Your task to perform on an android device: Add bose soundsport free to the cart on walmart, then select checkout. Image 0: 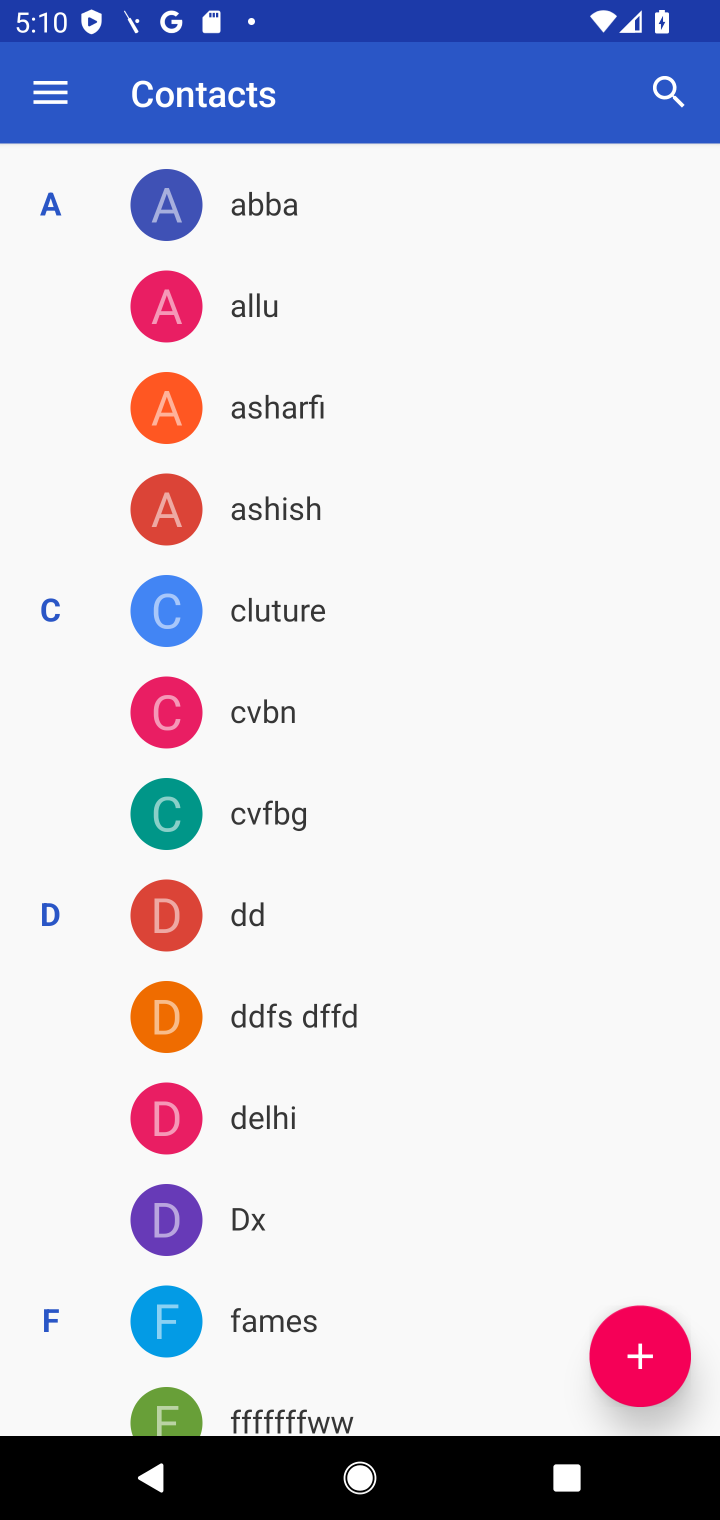
Step 0: press home button
Your task to perform on an android device: Add bose soundsport free to the cart on walmart, then select checkout. Image 1: 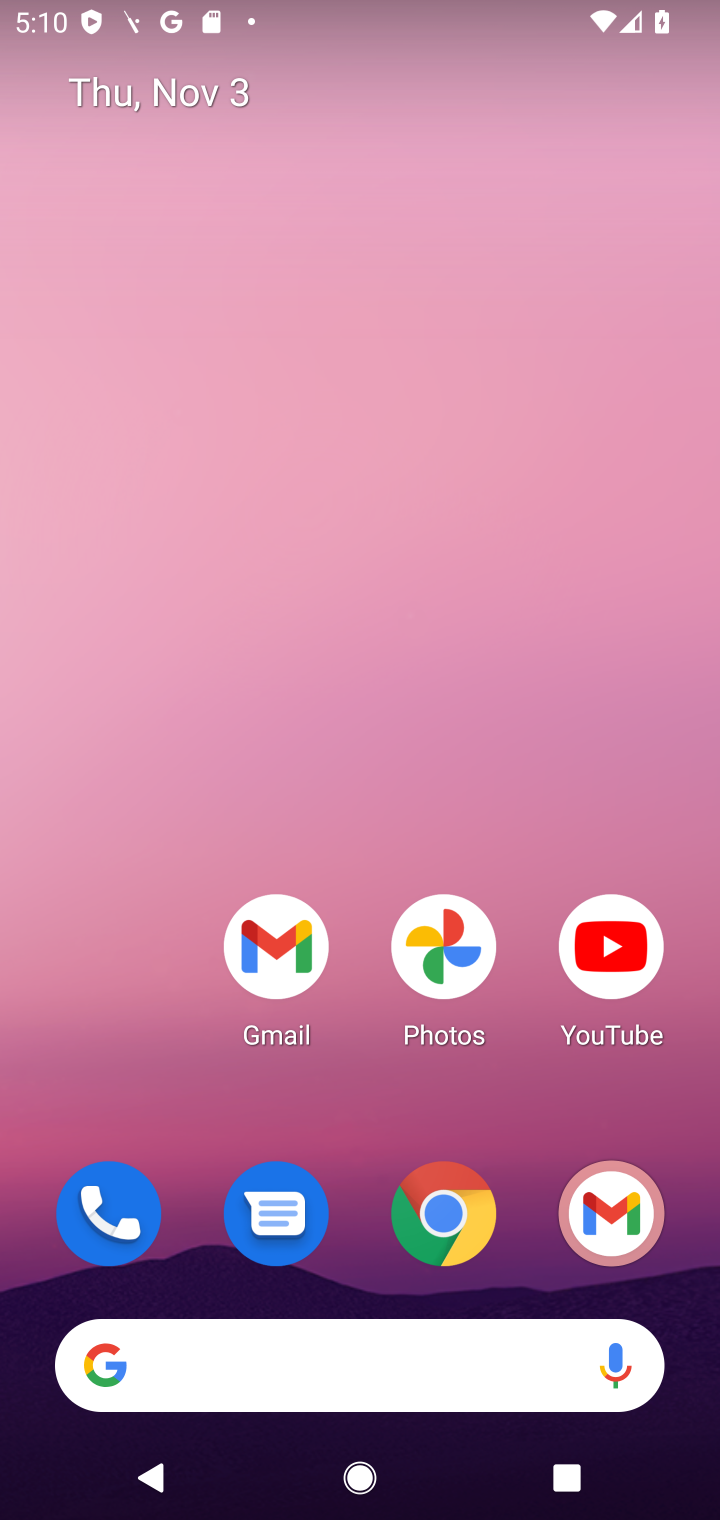
Step 1: click (452, 1217)
Your task to perform on an android device: Add bose soundsport free to the cart on walmart, then select checkout. Image 2: 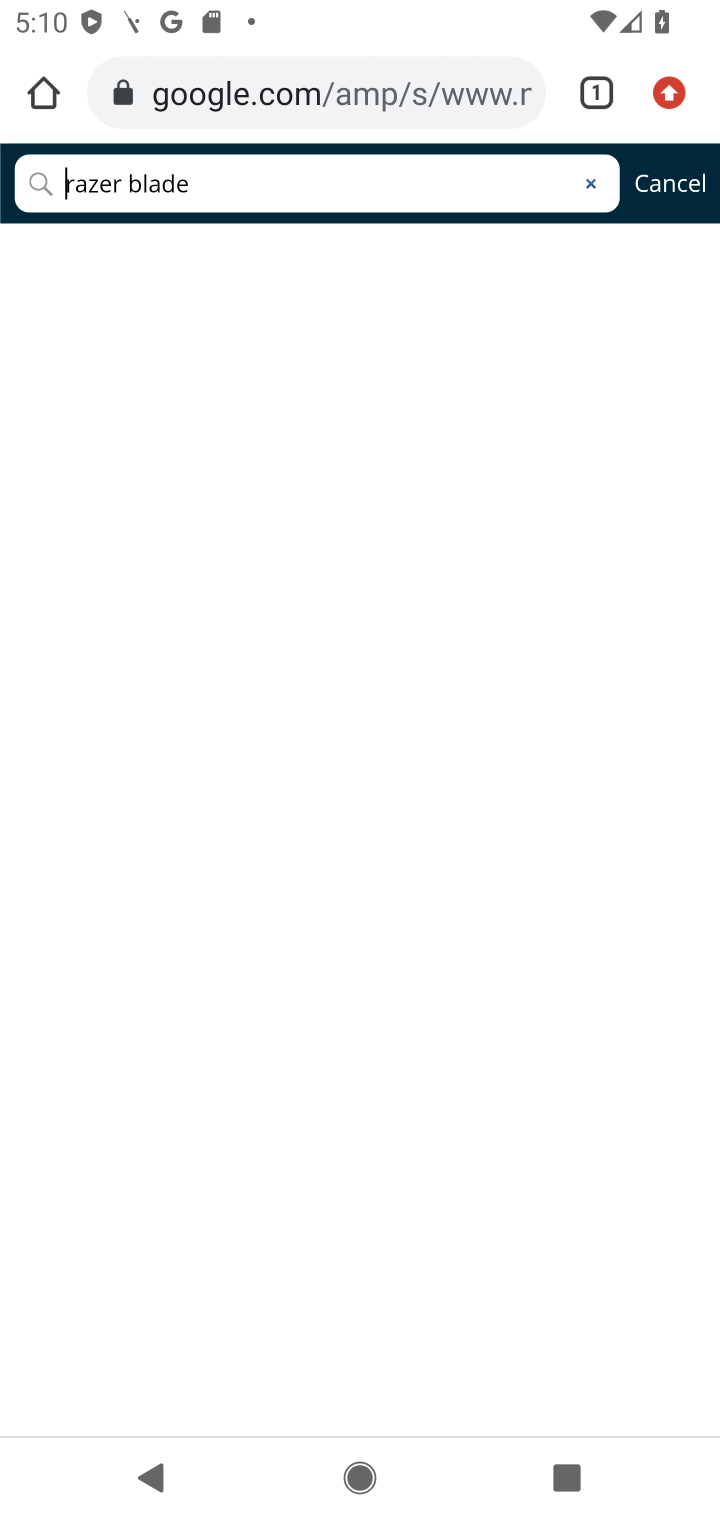
Step 2: click (374, 98)
Your task to perform on an android device: Add bose soundsport free to the cart on walmart, then select checkout. Image 3: 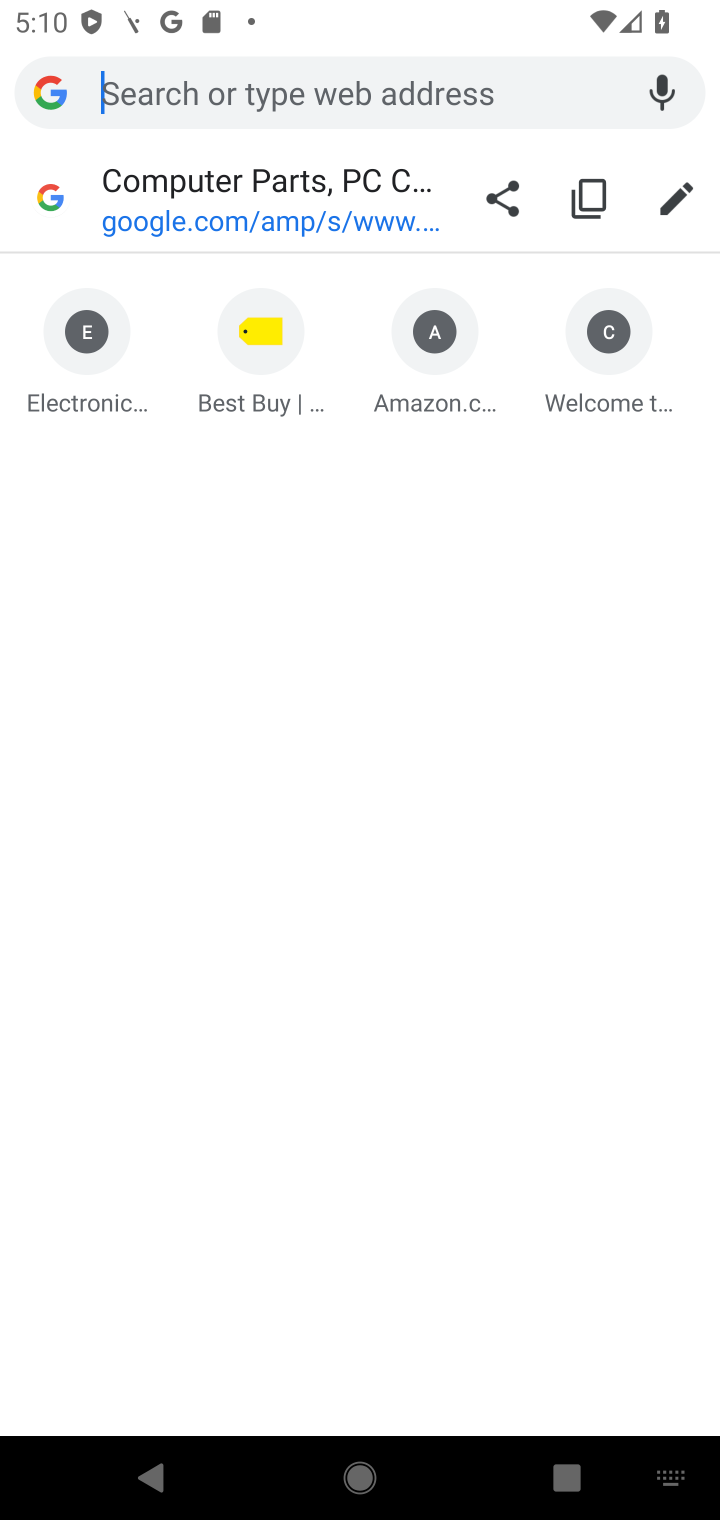
Step 3: type "walmart.com"
Your task to perform on an android device: Add bose soundsport free to the cart on walmart, then select checkout. Image 4: 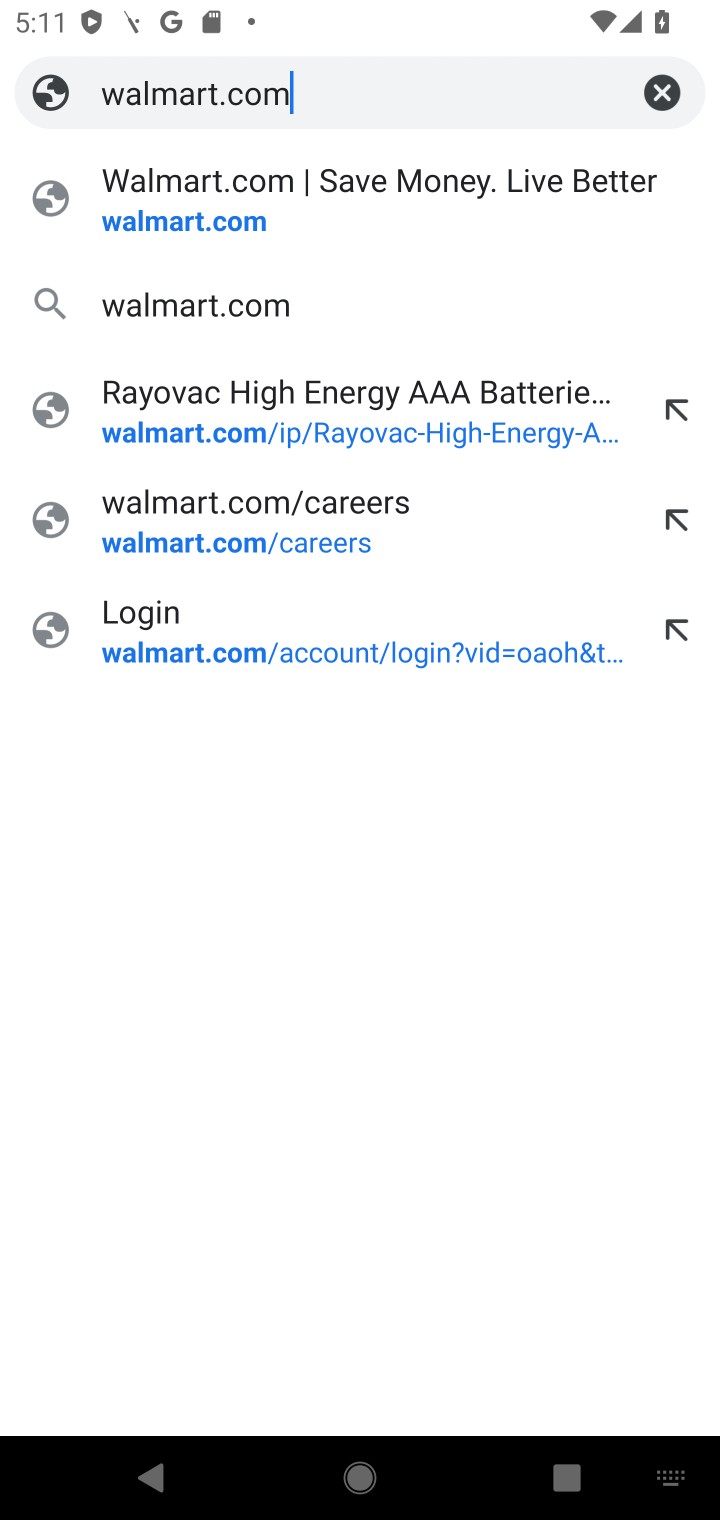
Step 4: click (150, 225)
Your task to perform on an android device: Add bose soundsport free to the cart on walmart, then select checkout. Image 5: 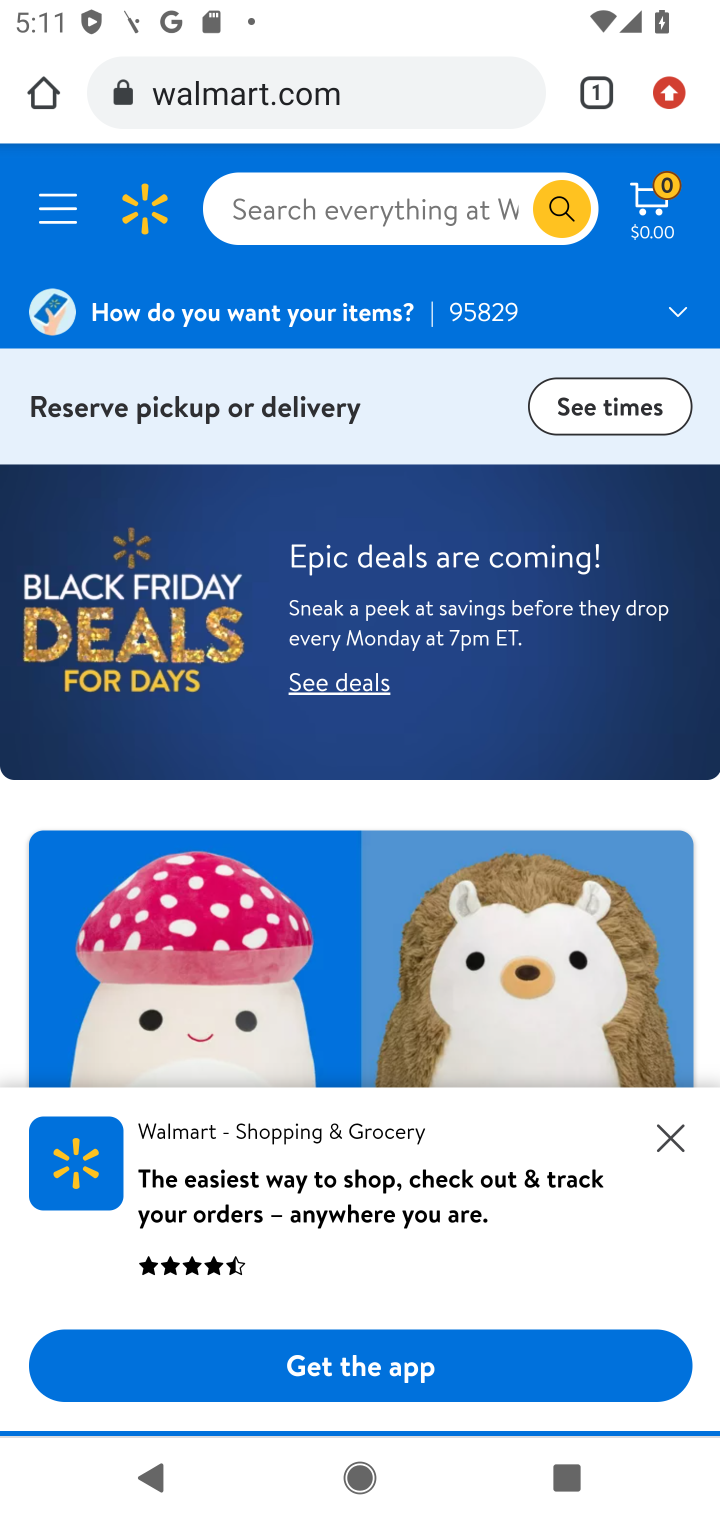
Step 5: click (348, 228)
Your task to perform on an android device: Add bose soundsport free to the cart on walmart, then select checkout. Image 6: 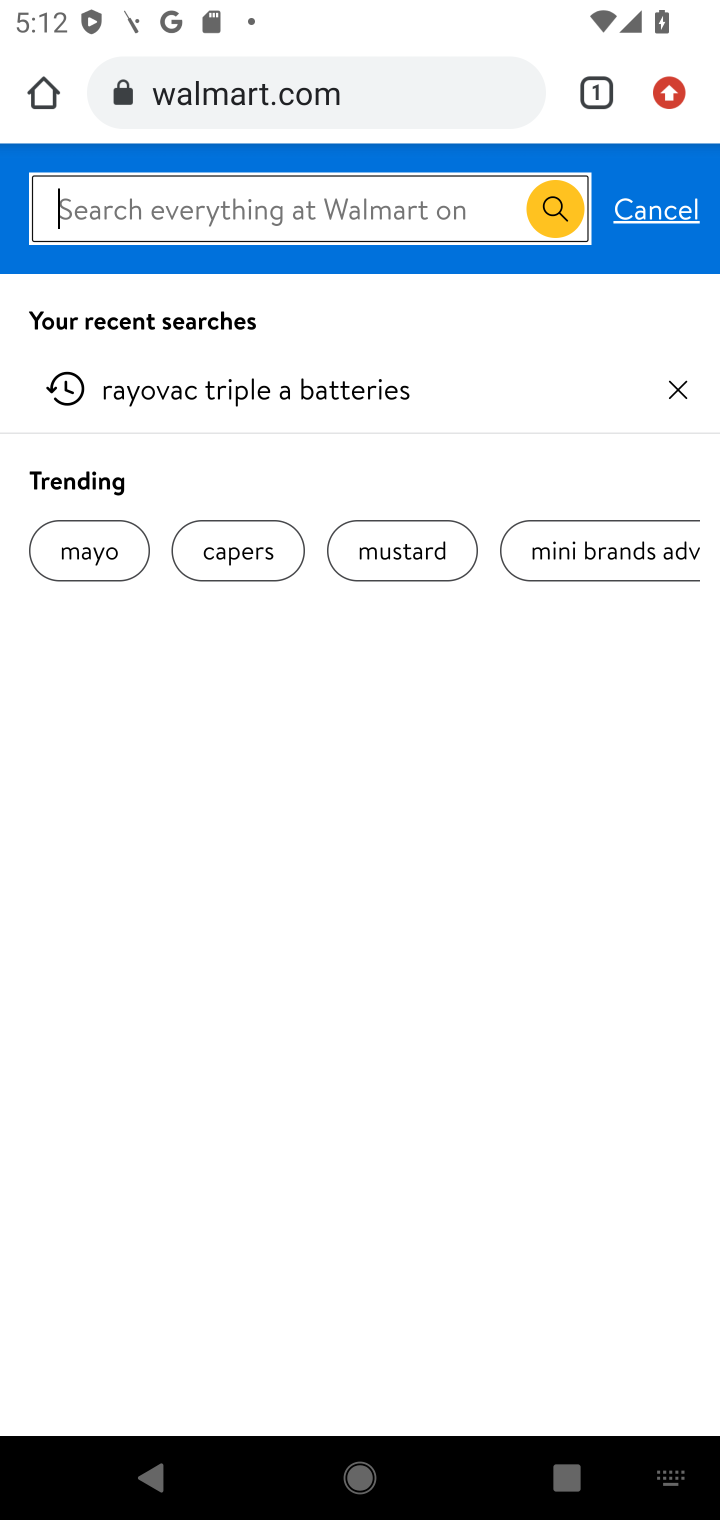
Step 6: type "bose soundsport free"
Your task to perform on an android device: Add bose soundsport free to the cart on walmart, then select checkout. Image 7: 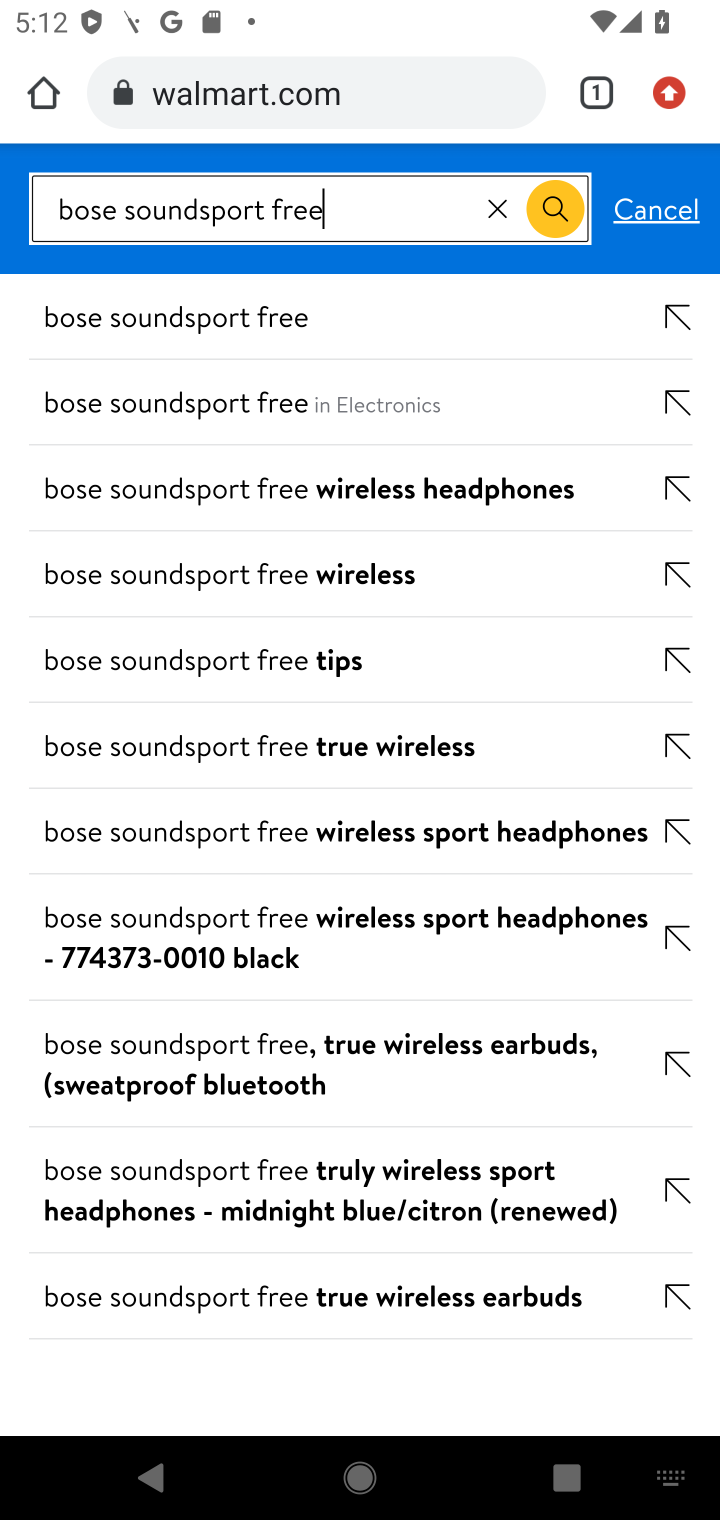
Step 7: click (161, 323)
Your task to perform on an android device: Add bose soundsport free to the cart on walmart, then select checkout. Image 8: 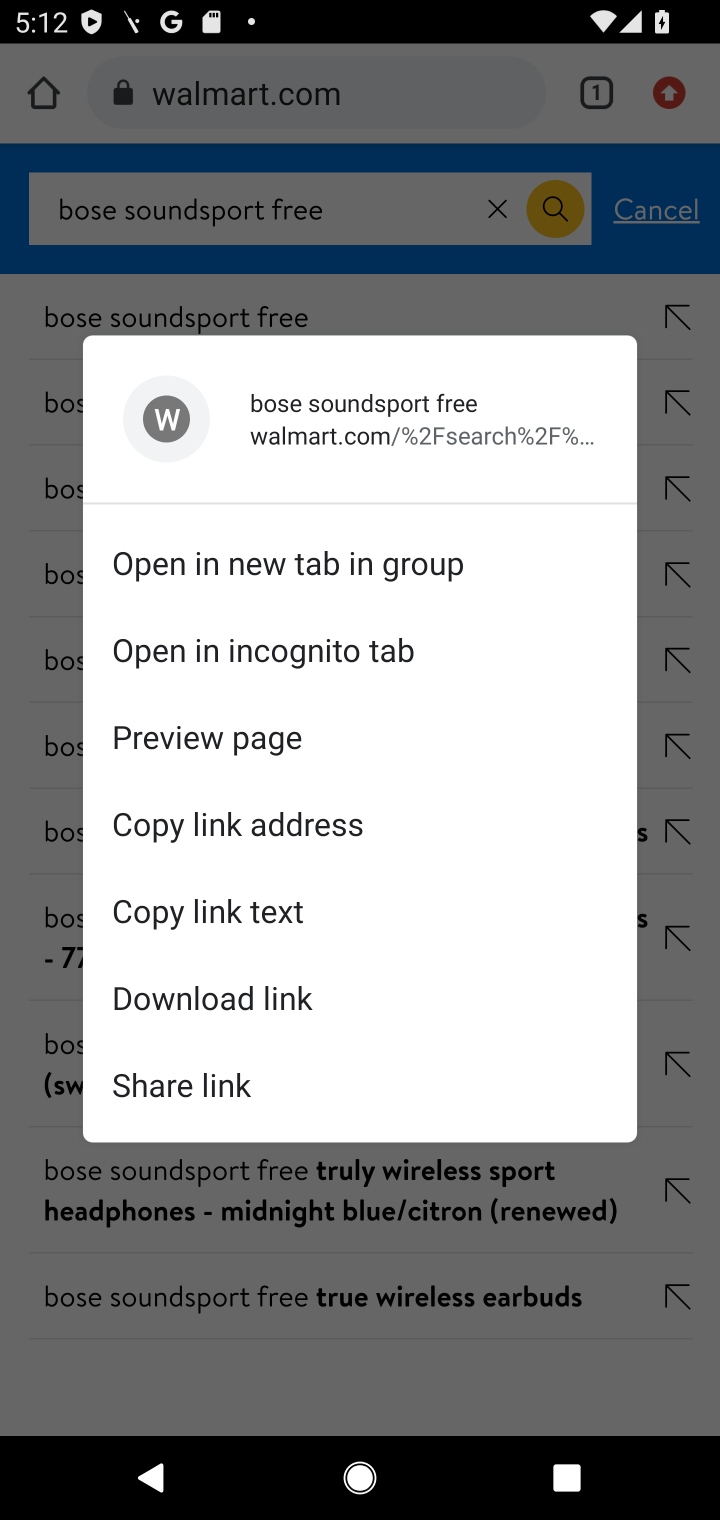
Step 8: click (66, 332)
Your task to perform on an android device: Add bose soundsport free to the cart on walmart, then select checkout. Image 9: 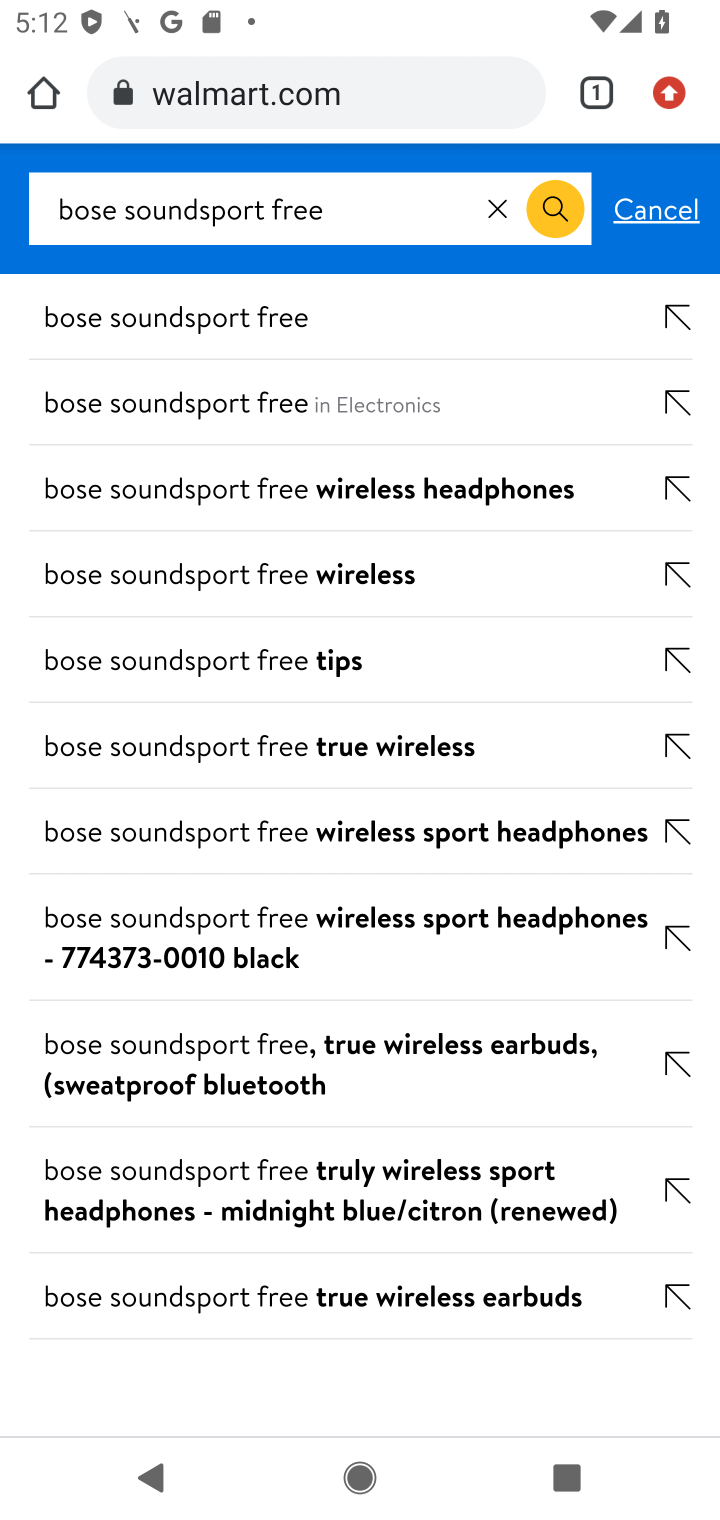
Step 9: click (65, 332)
Your task to perform on an android device: Add bose soundsport free to the cart on walmart, then select checkout. Image 10: 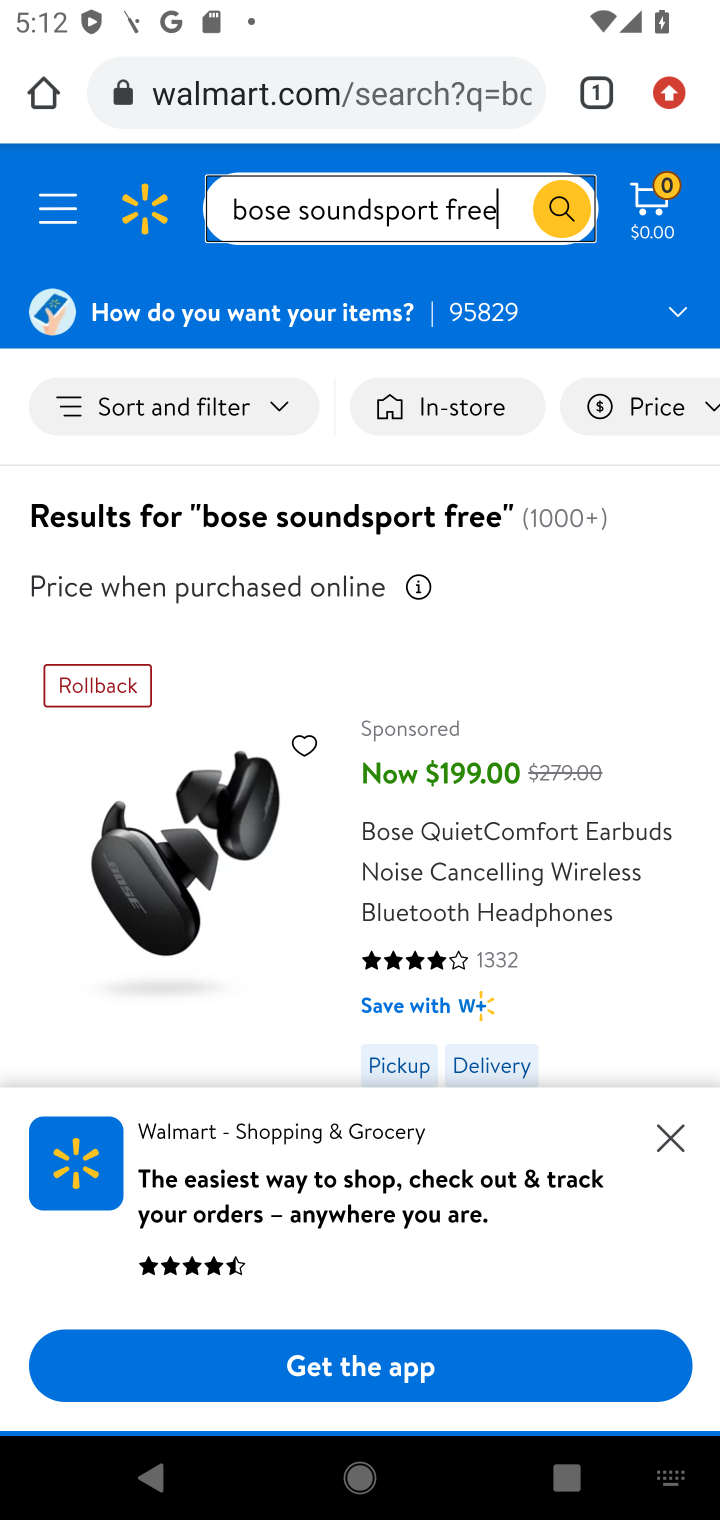
Step 10: click (666, 1131)
Your task to perform on an android device: Add bose soundsport free to the cart on walmart, then select checkout. Image 11: 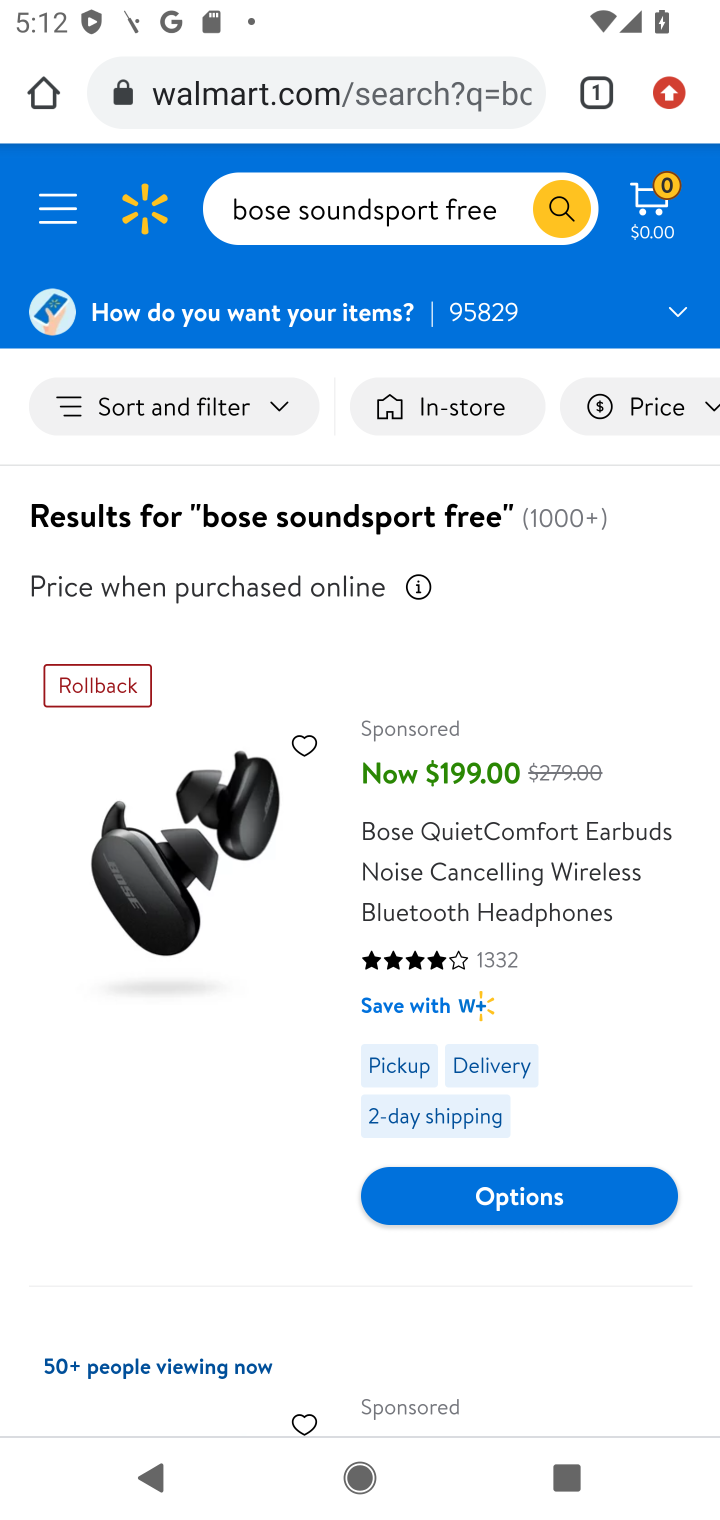
Step 11: drag from (259, 983) to (259, 460)
Your task to perform on an android device: Add bose soundsport free to the cart on walmart, then select checkout. Image 12: 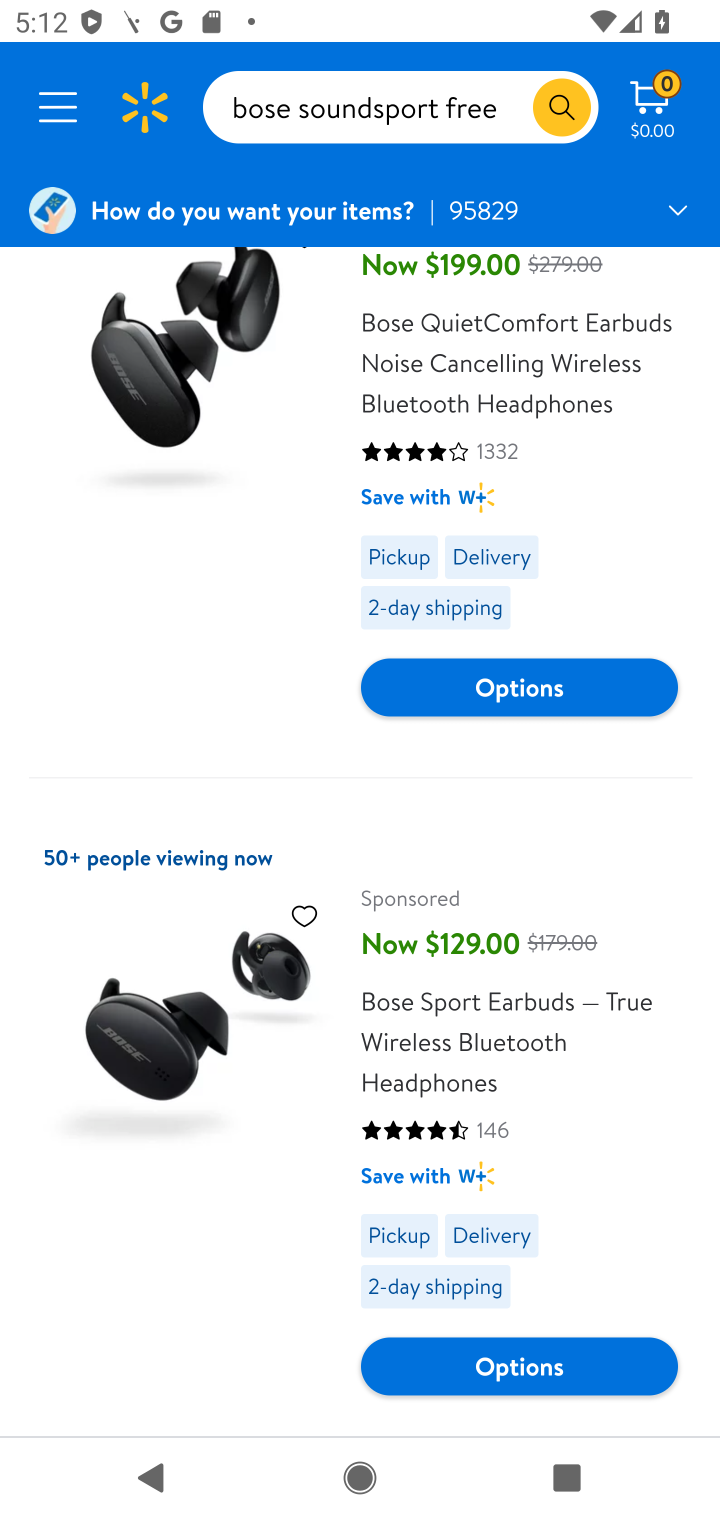
Step 12: drag from (297, 1028) to (277, 1352)
Your task to perform on an android device: Add bose soundsport free to the cart on walmart, then select checkout. Image 13: 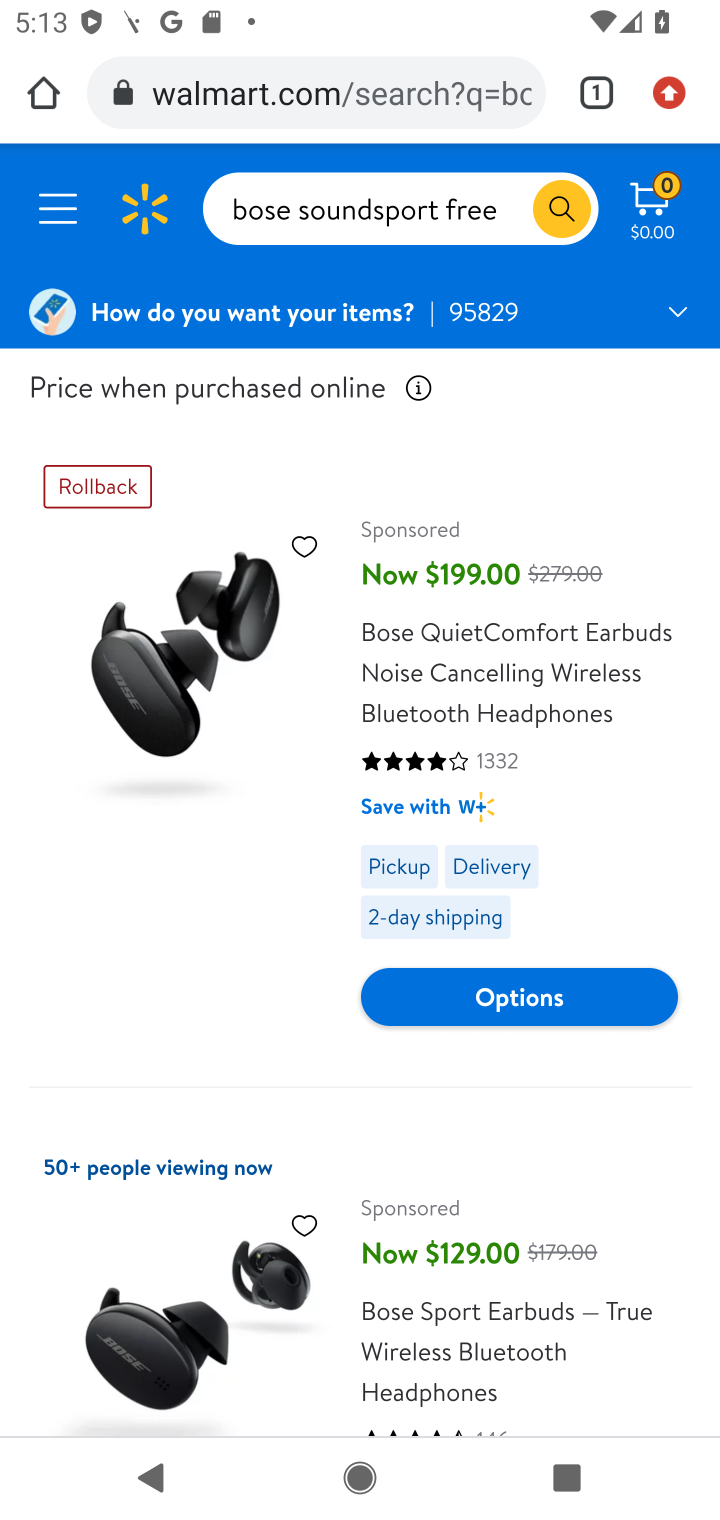
Step 13: drag from (294, 1204) to (306, 940)
Your task to perform on an android device: Add bose soundsport free to the cart on walmart, then select checkout. Image 14: 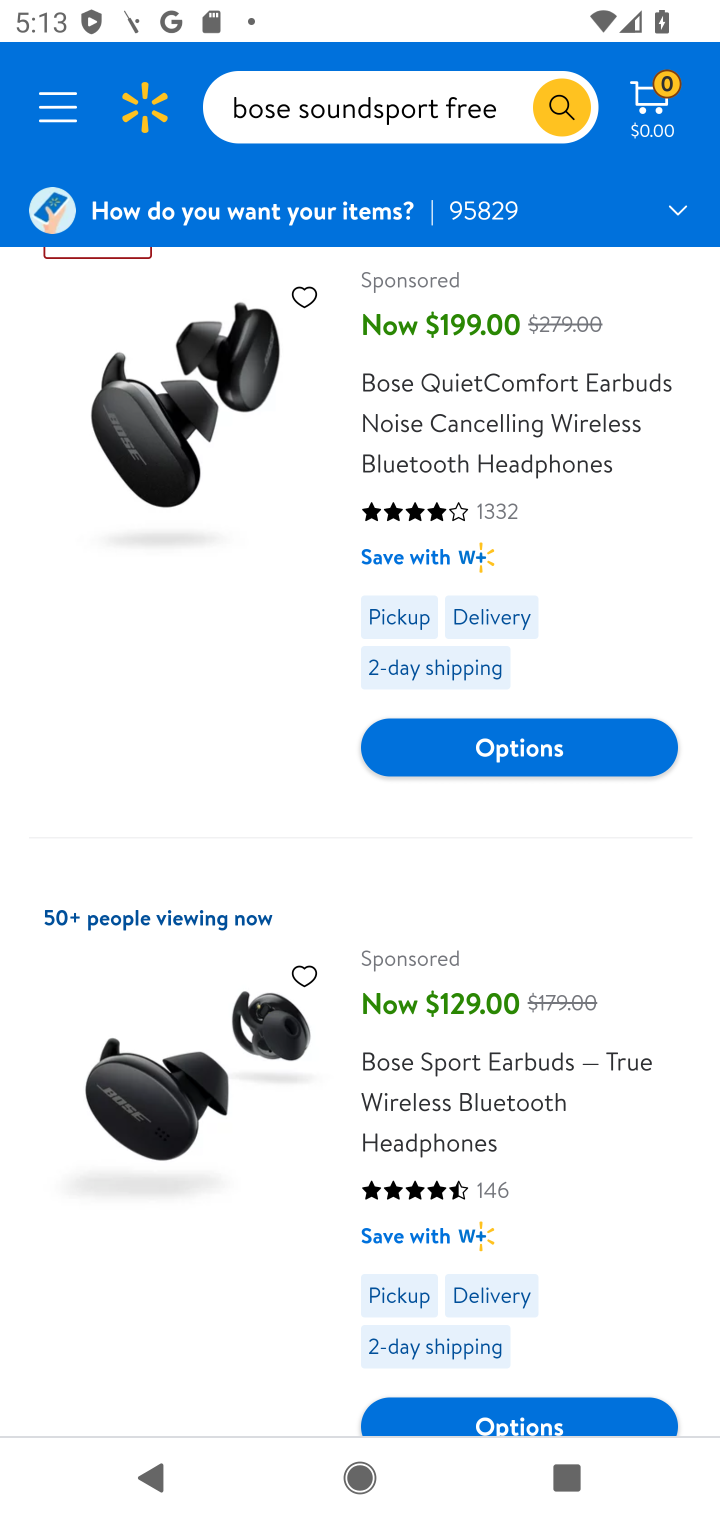
Step 14: click (264, 1170)
Your task to perform on an android device: Add bose soundsport free to the cart on walmart, then select checkout. Image 15: 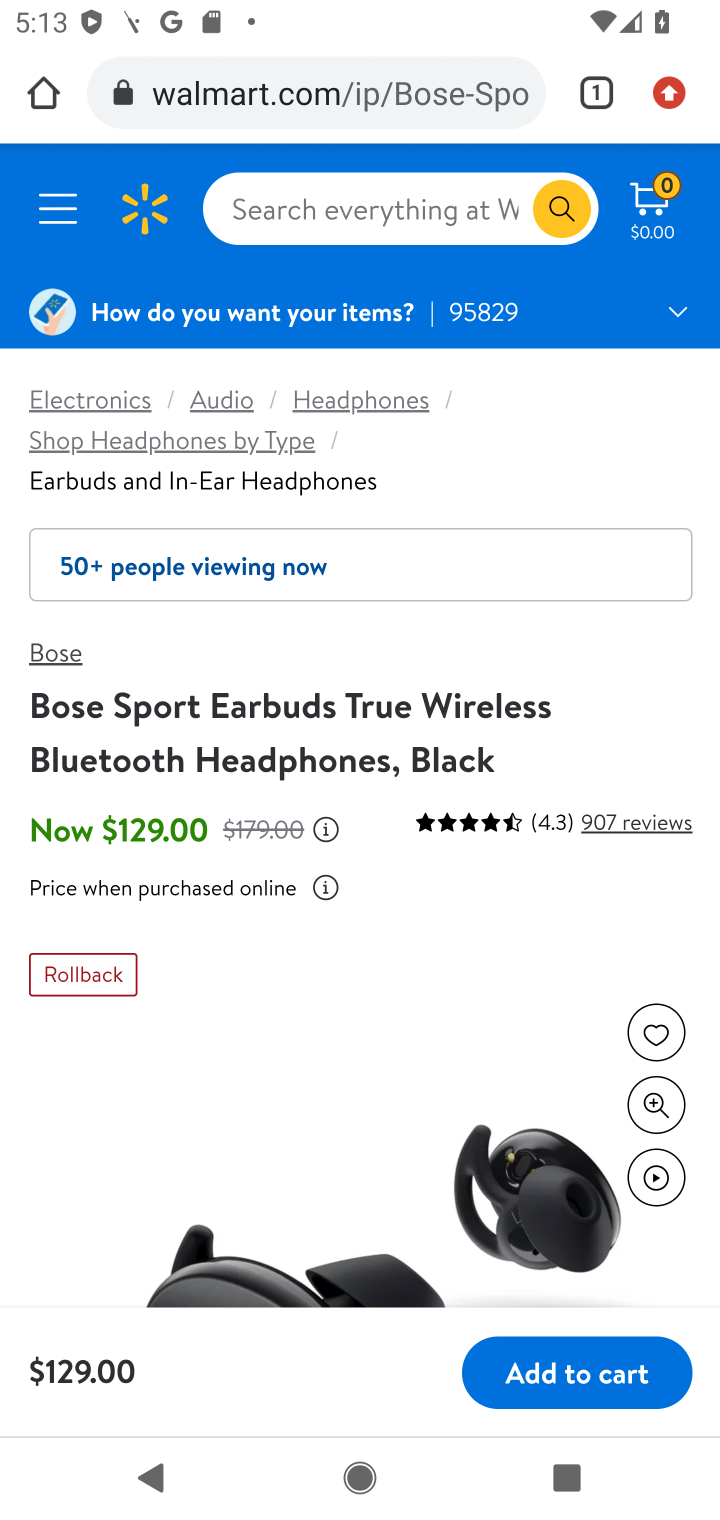
Step 15: drag from (273, 1150) to (327, 726)
Your task to perform on an android device: Add bose soundsport free to the cart on walmart, then select checkout. Image 16: 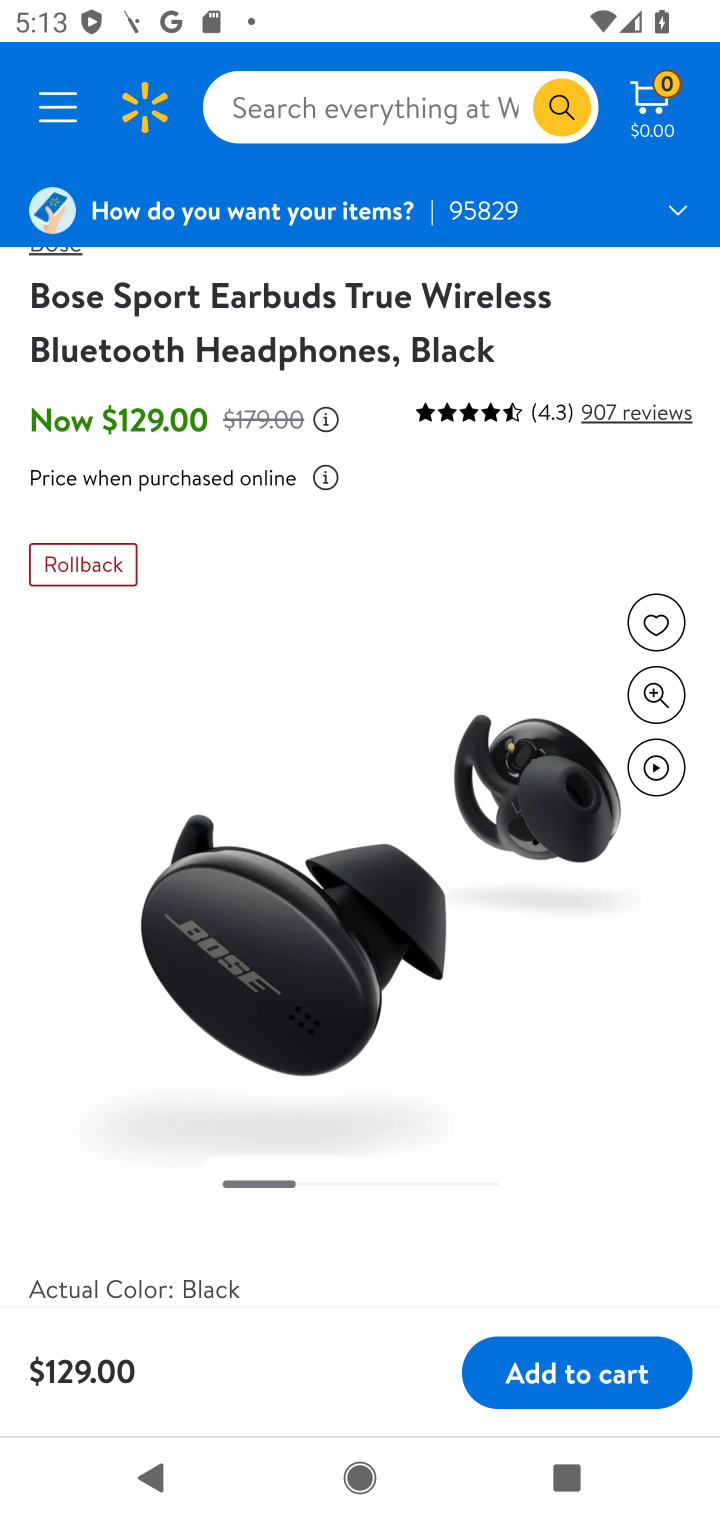
Step 16: drag from (335, 1061) to (335, 795)
Your task to perform on an android device: Add bose soundsport free to the cart on walmart, then select checkout. Image 17: 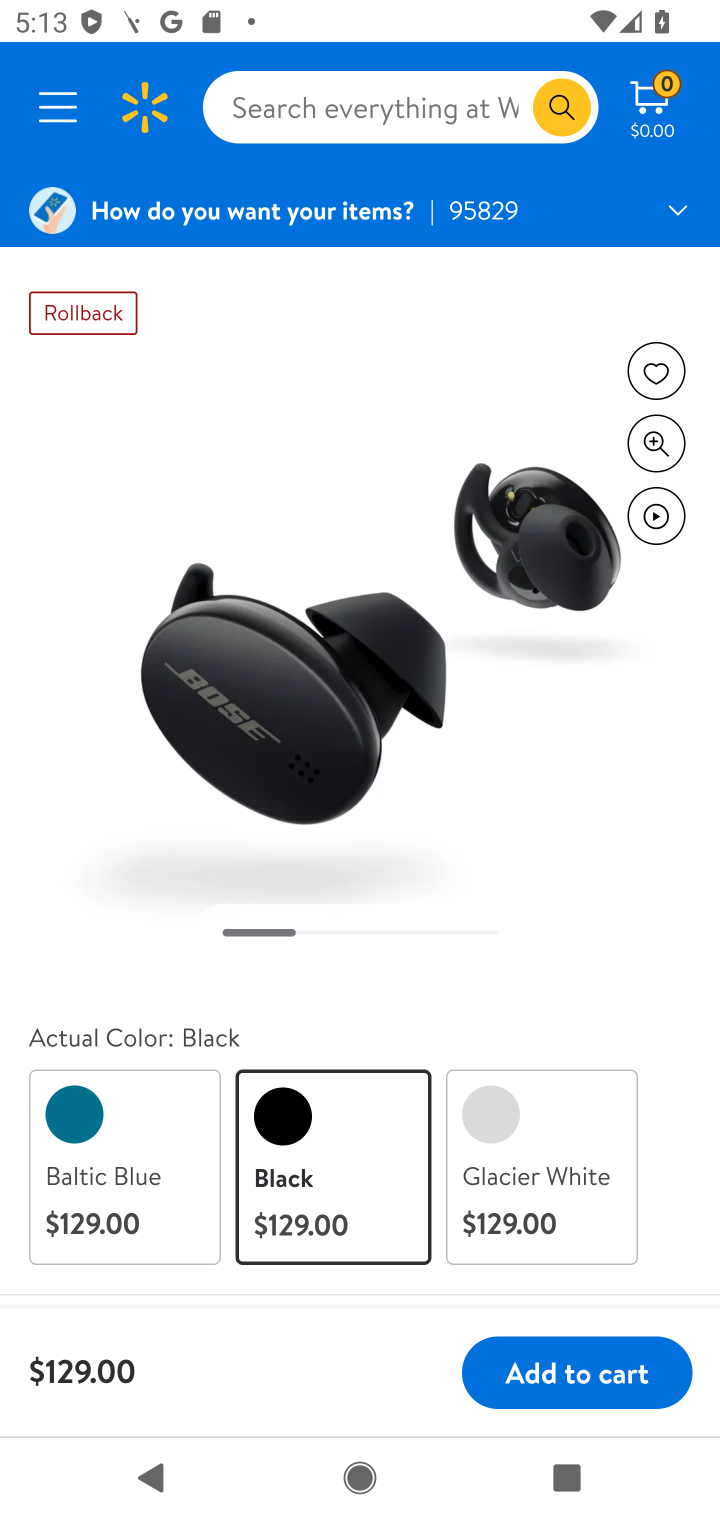
Step 17: click (553, 1385)
Your task to perform on an android device: Add bose soundsport free to the cart on walmart, then select checkout. Image 18: 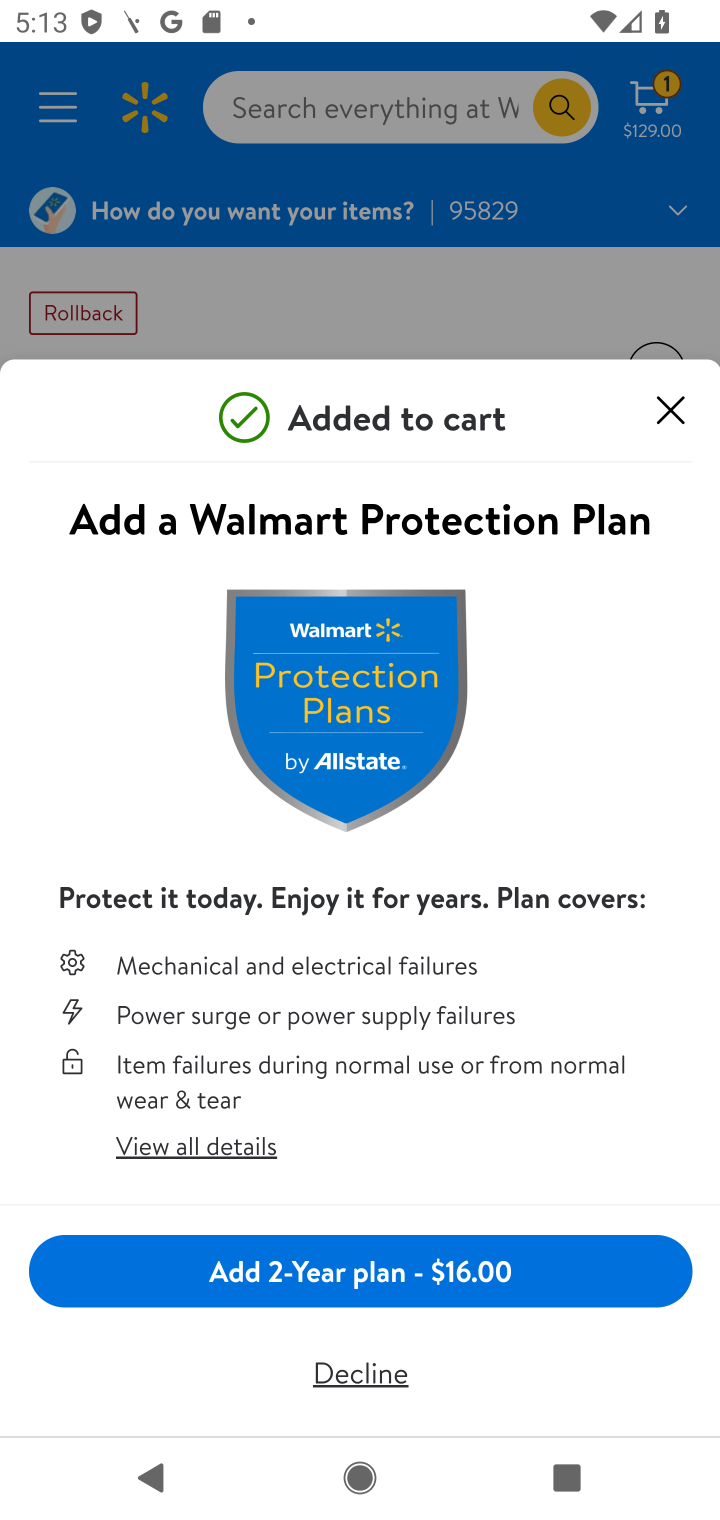
Step 18: click (673, 419)
Your task to perform on an android device: Add bose soundsport free to the cart on walmart, then select checkout. Image 19: 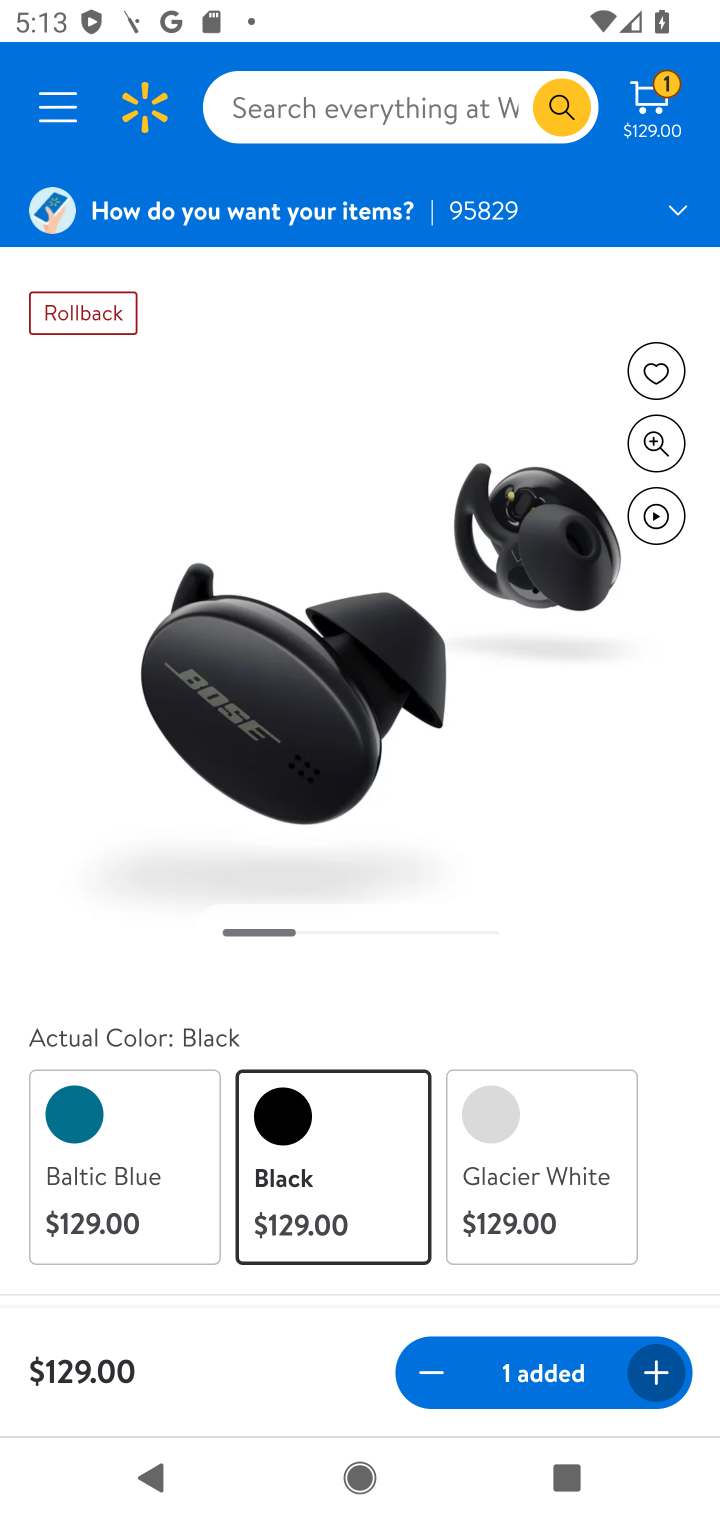
Step 19: click (652, 106)
Your task to perform on an android device: Add bose soundsport free to the cart on walmart, then select checkout. Image 20: 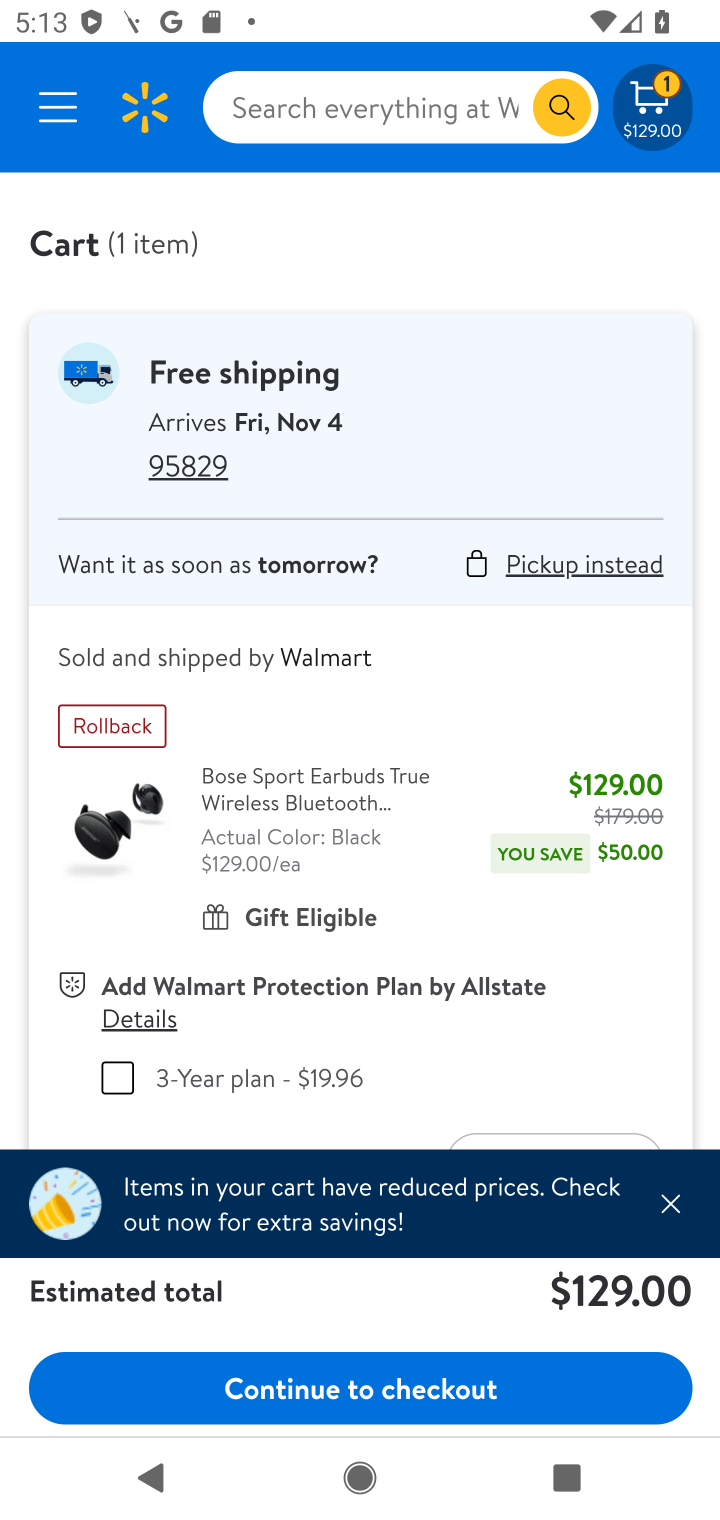
Step 20: click (354, 1401)
Your task to perform on an android device: Add bose soundsport free to the cart on walmart, then select checkout. Image 21: 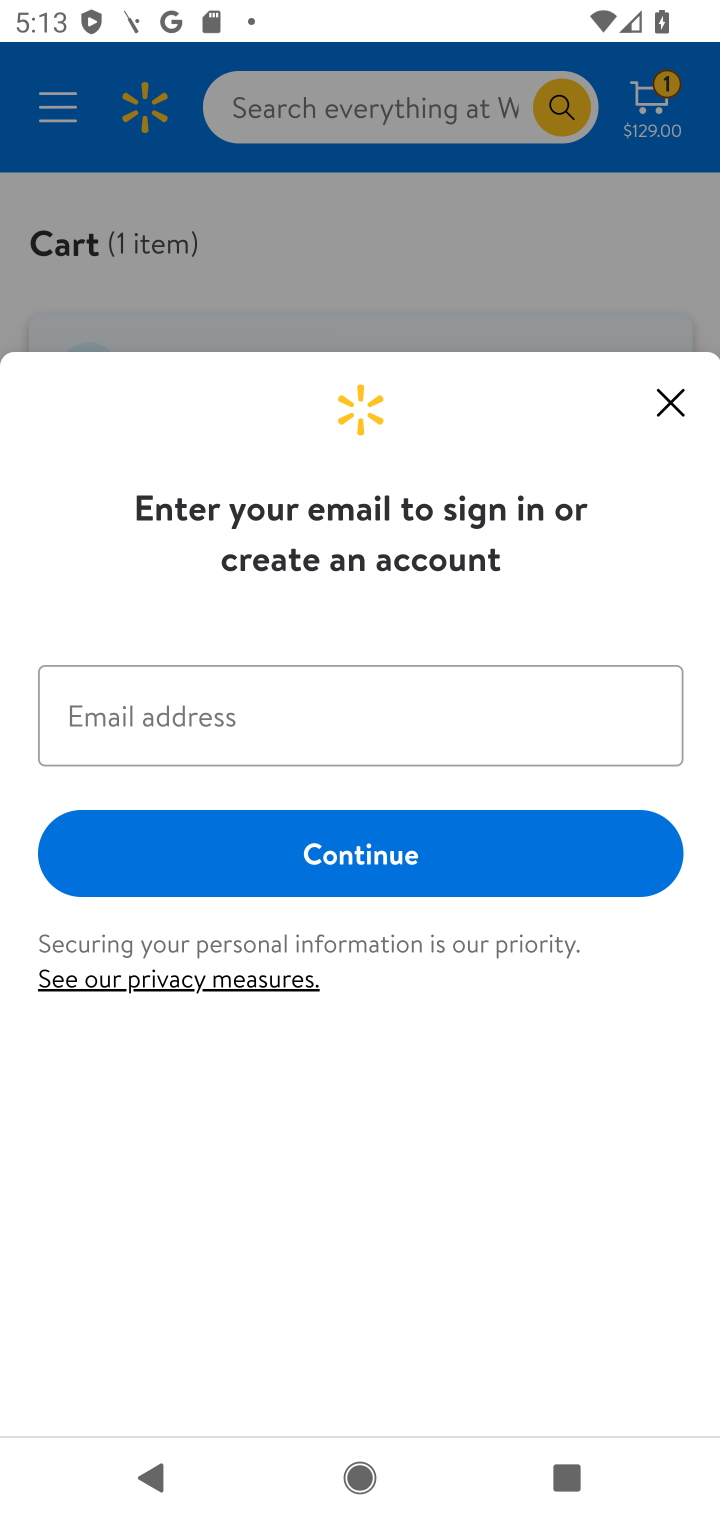
Step 21: task complete